Your task to perform on an android device: change timer sound Image 0: 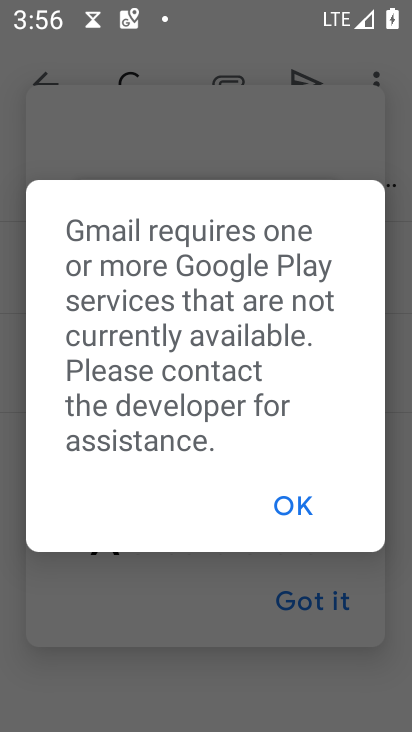
Step 0: press home button
Your task to perform on an android device: change timer sound Image 1: 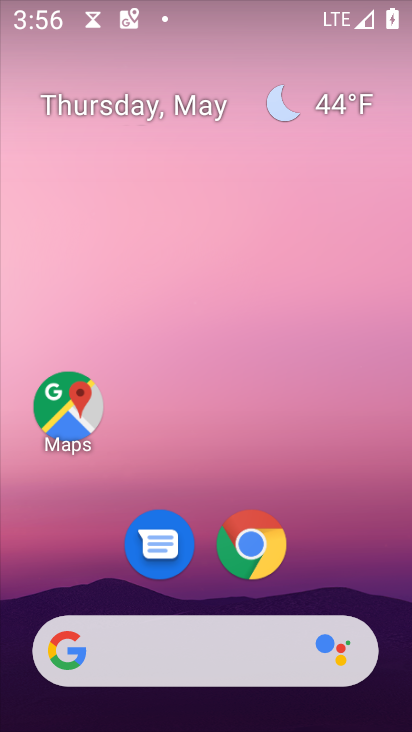
Step 1: drag from (321, 589) to (349, 72)
Your task to perform on an android device: change timer sound Image 2: 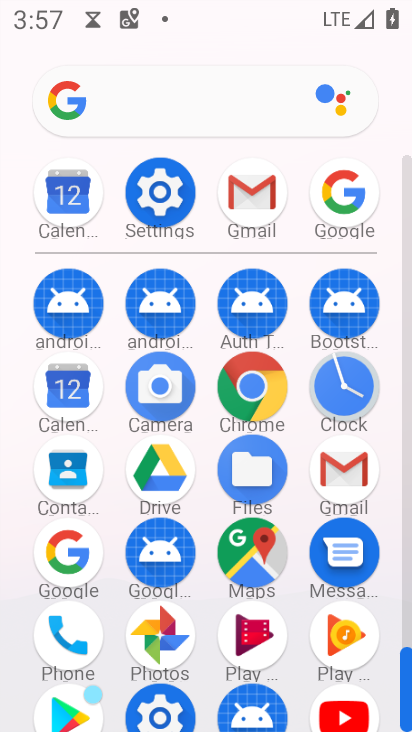
Step 2: click (351, 409)
Your task to perform on an android device: change timer sound Image 3: 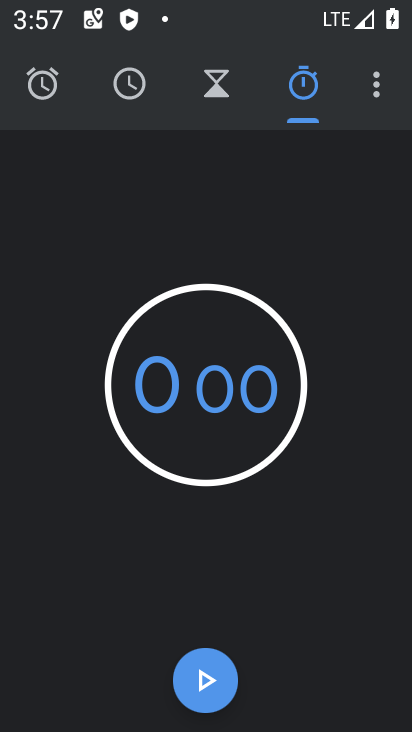
Step 3: click (370, 80)
Your task to perform on an android device: change timer sound Image 4: 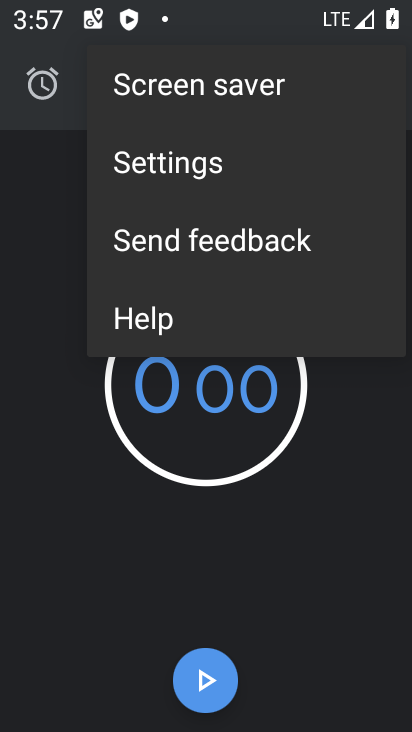
Step 4: click (189, 172)
Your task to perform on an android device: change timer sound Image 5: 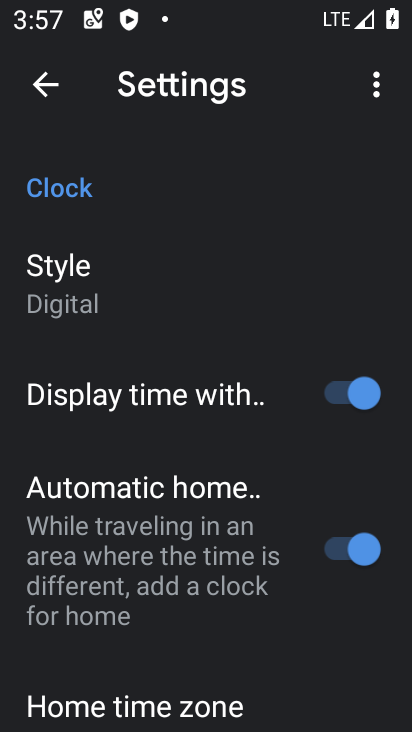
Step 5: drag from (179, 611) to (189, 284)
Your task to perform on an android device: change timer sound Image 6: 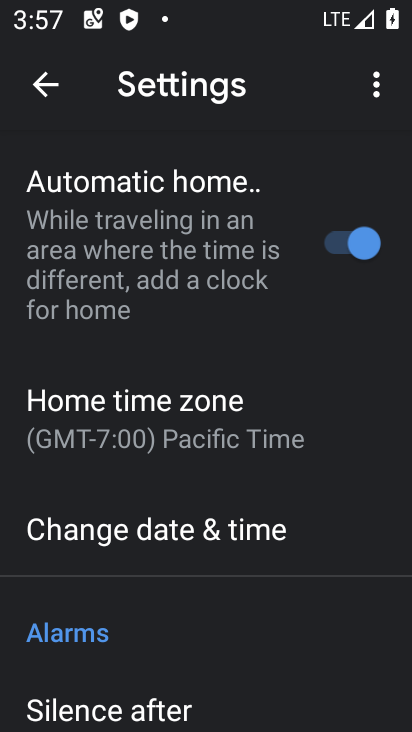
Step 6: drag from (131, 563) to (161, 405)
Your task to perform on an android device: change timer sound Image 7: 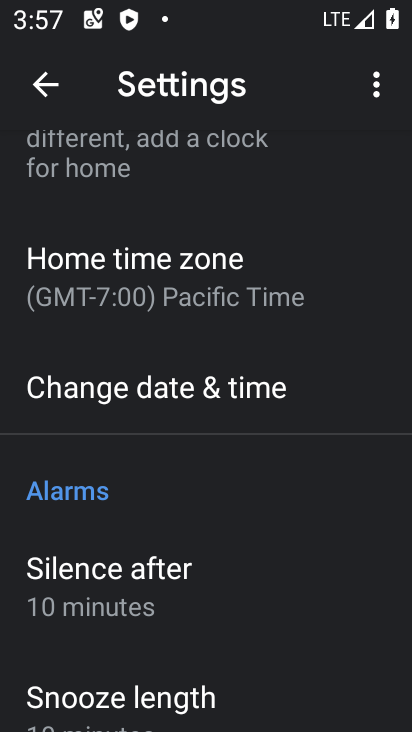
Step 7: drag from (174, 590) to (220, 379)
Your task to perform on an android device: change timer sound Image 8: 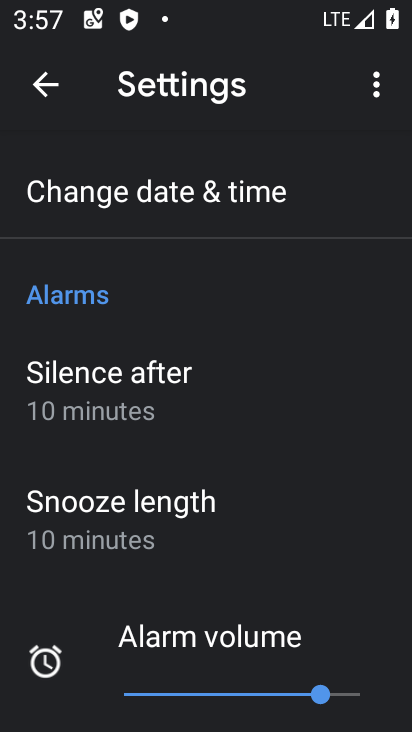
Step 8: drag from (218, 588) to (223, 365)
Your task to perform on an android device: change timer sound Image 9: 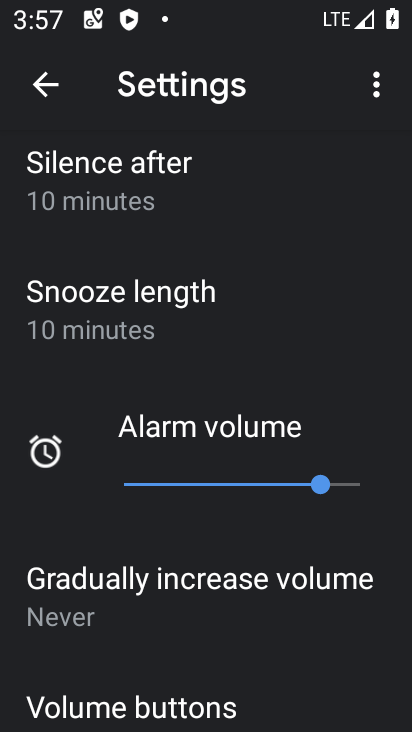
Step 9: drag from (189, 605) to (216, 353)
Your task to perform on an android device: change timer sound Image 10: 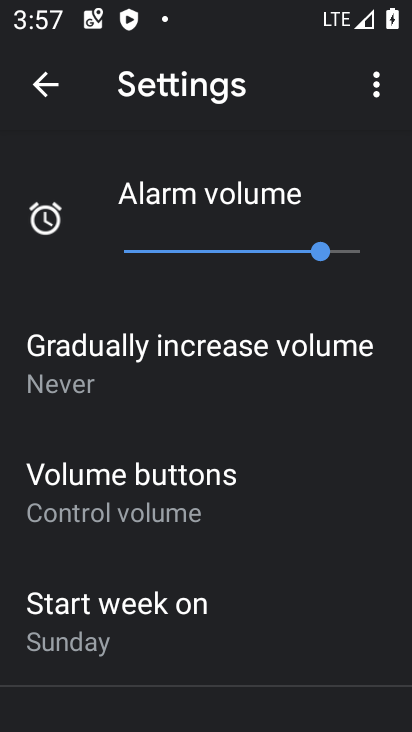
Step 10: drag from (205, 599) to (236, 380)
Your task to perform on an android device: change timer sound Image 11: 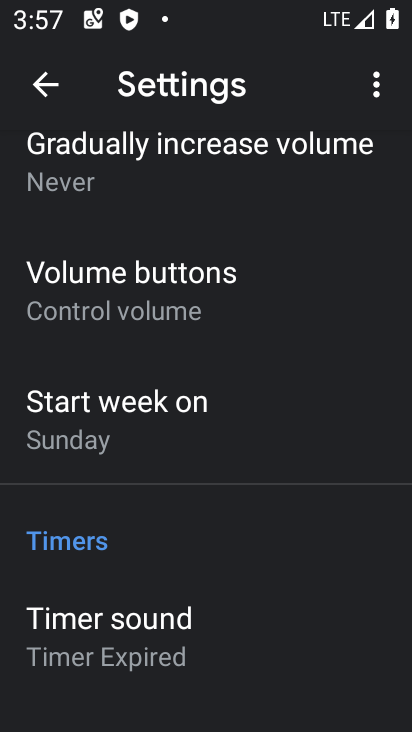
Step 11: drag from (240, 606) to (322, 244)
Your task to perform on an android device: change timer sound Image 12: 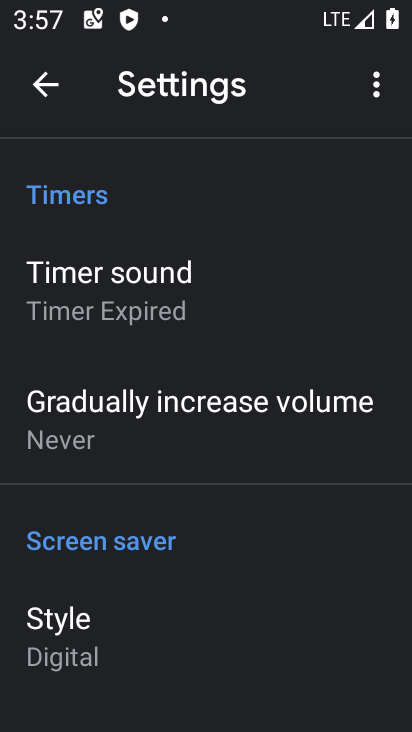
Step 12: click (130, 327)
Your task to perform on an android device: change timer sound Image 13: 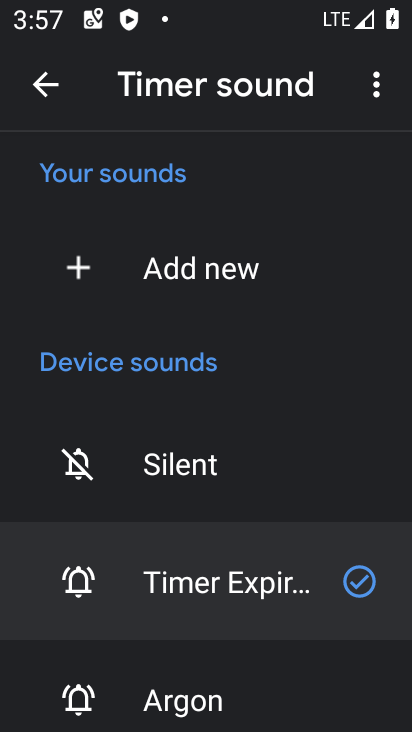
Step 13: click (153, 715)
Your task to perform on an android device: change timer sound Image 14: 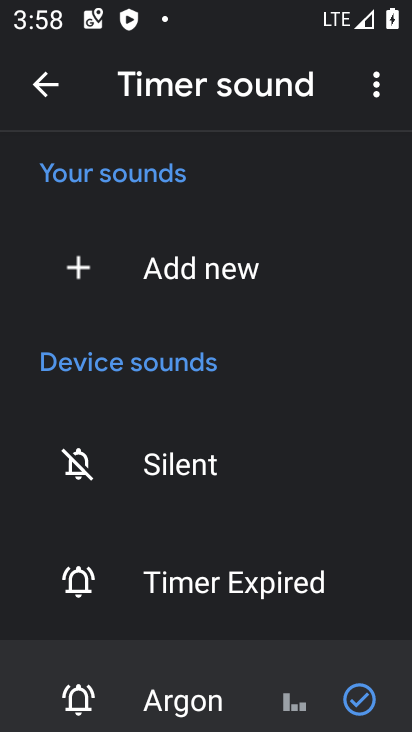
Step 14: task complete